Your task to perform on an android device: What's the weather going to be tomorrow? Image 0: 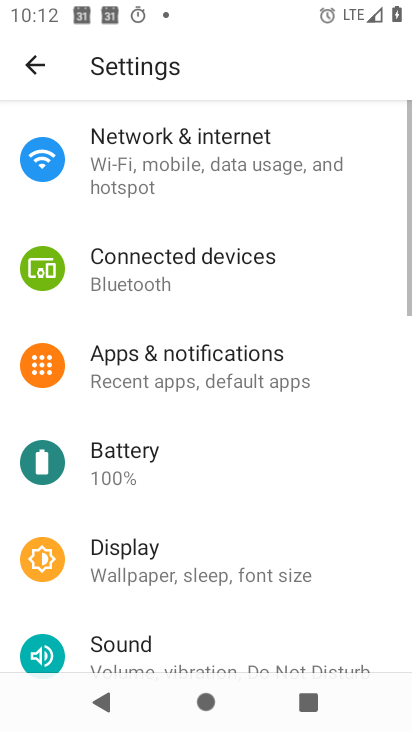
Step 0: press home button
Your task to perform on an android device: What's the weather going to be tomorrow? Image 1: 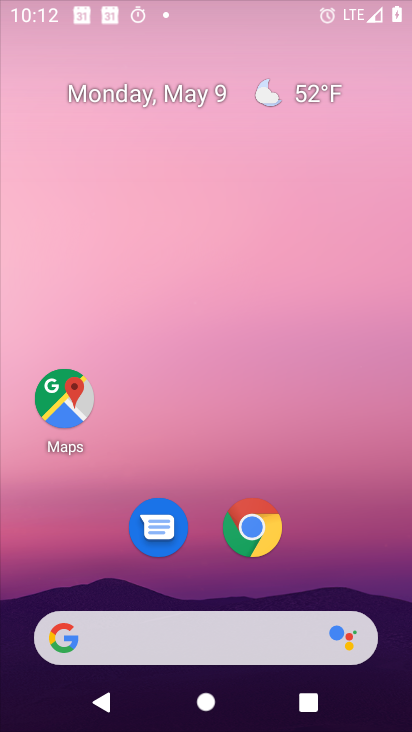
Step 1: drag from (205, 575) to (233, 52)
Your task to perform on an android device: What's the weather going to be tomorrow? Image 2: 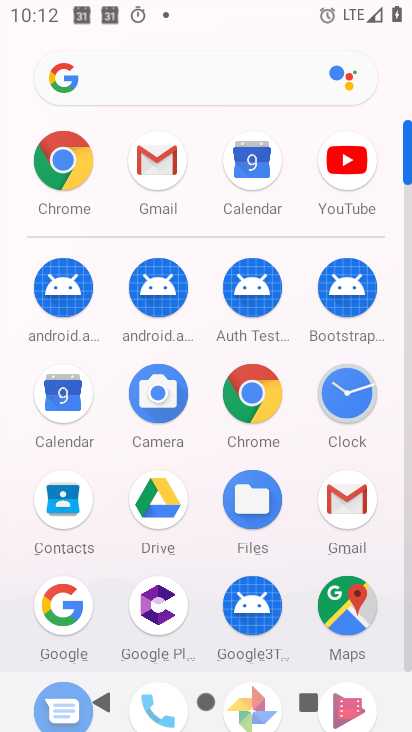
Step 2: click (62, 609)
Your task to perform on an android device: What's the weather going to be tomorrow? Image 3: 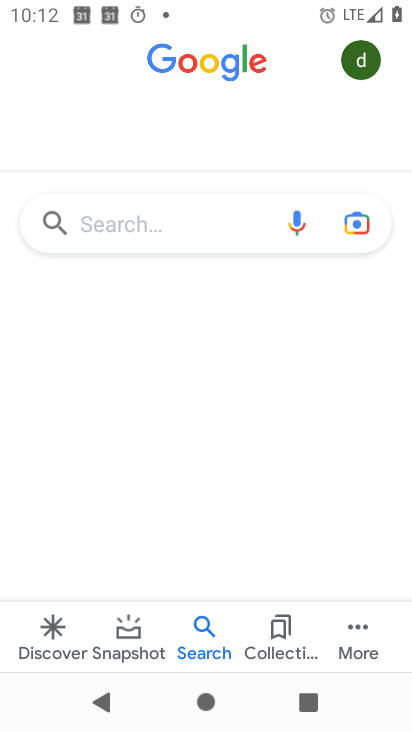
Step 3: click (149, 226)
Your task to perform on an android device: What's the weather going to be tomorrow? Image 4: 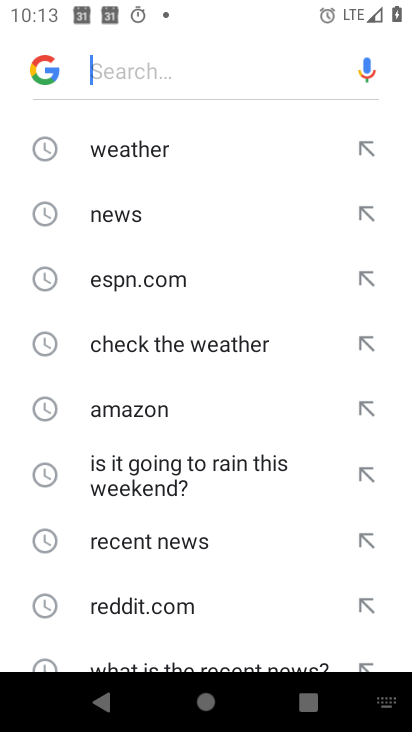
Step 4: type "whats the weather going to be tomorrow"
Your task to perform on an android device: What's the weather going to be tomorrow? Image 5: 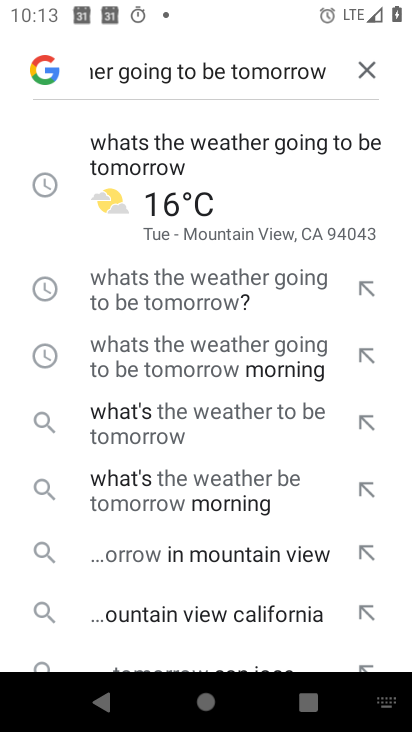
Step 5: click (144, 167)
Your task to perform on an android device: What's the weather going to be tomorrow? Image 6: 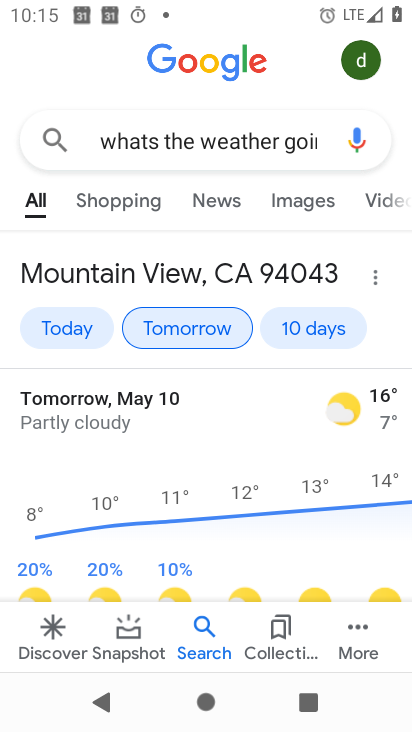
Step 6: task complete